Your task to perform on an android device: Show me popular games on the Play Store Image 0: 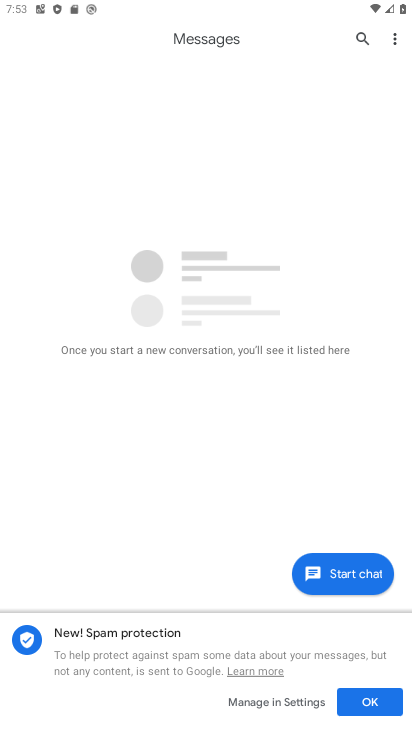
Step 0: press home button
Your task to perform on an android device: Show me popular games on the Play Store Image 1: 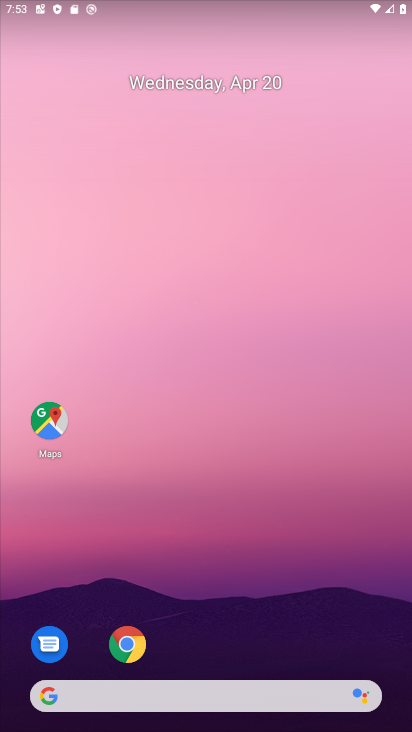
Step 1: drag from (317, 618) to (229, 78)
Your task to perform on an android device: Show me popular games on the Play Store Image 2: 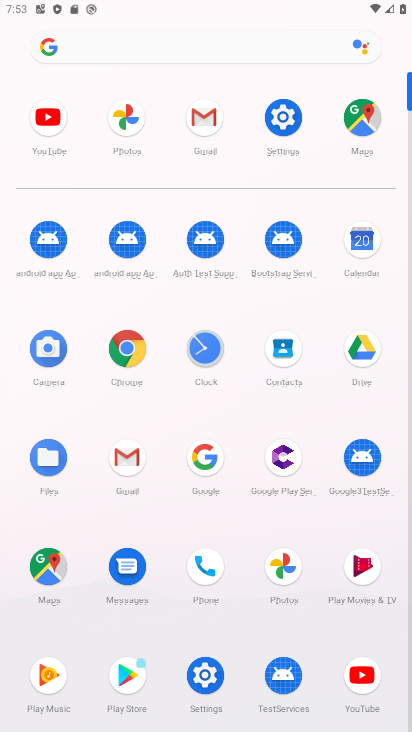
Step 2: click (125, 666)
Your task to perform on an android device: Show me popular games on the Play Store Image 3: 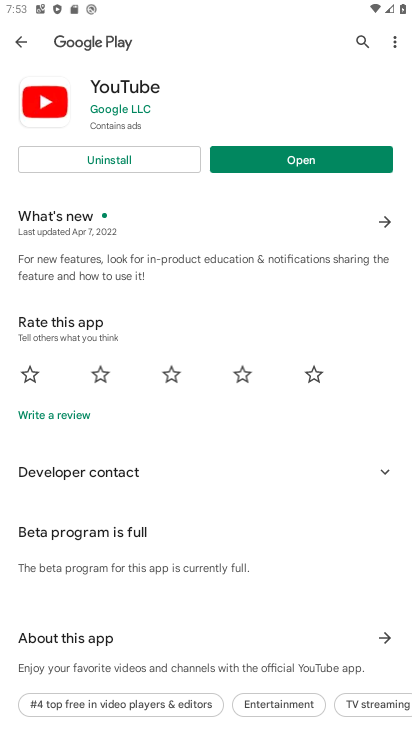
Step 3: press back button
Your task to perform on an android device: Show me popular games on the Play Store Image 4: 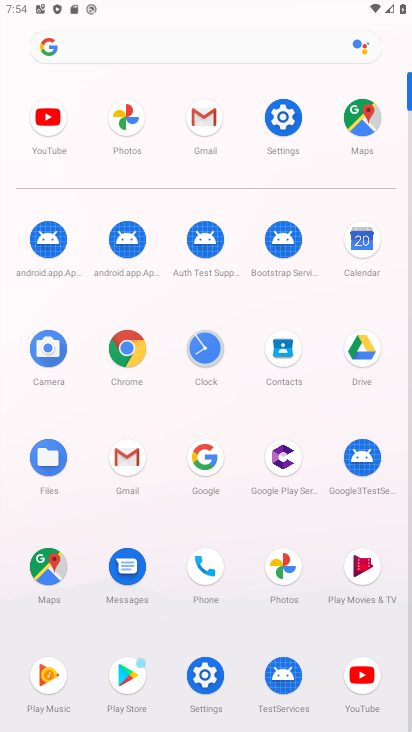
Step 4: click (147, 675)
Your task to perform on an android device: Show me popular games on the Play Store Image 5: 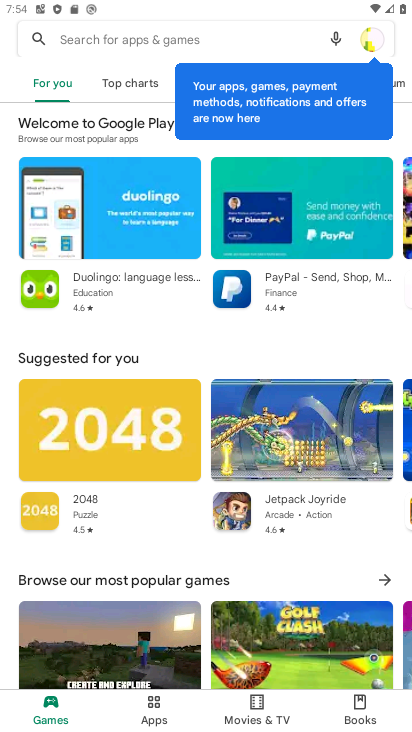
Step 5: click (141, 86)
Your task to perform on an android device: Show me popular games on the Play Store Image 6: 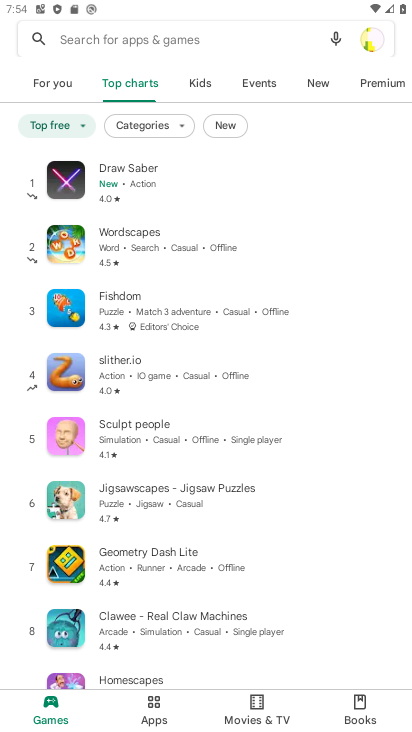
Step 6: click (177, 123)
Your task to perform on an android device: Show me popular games on the Play Store Image 7: 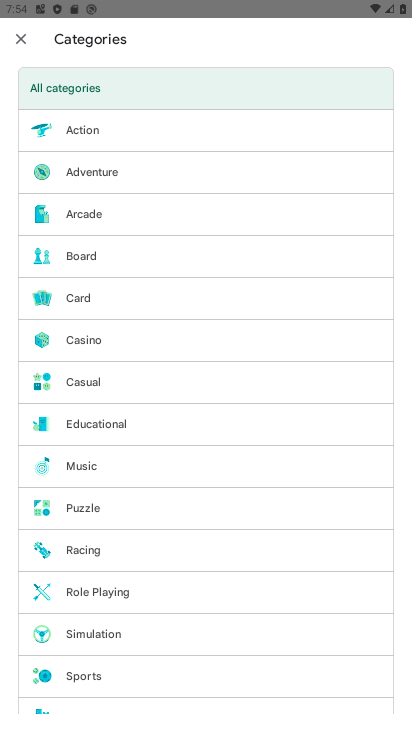
Step 7: click (221, 83)
Your task to perform on an android device: Show me popular games on the Play Store Image 8: 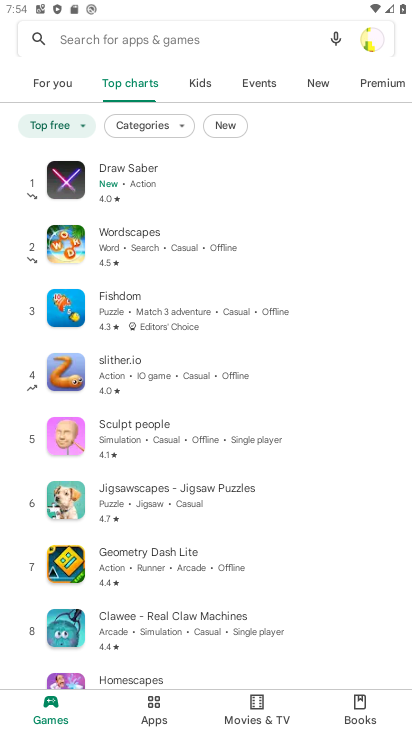
Step 8: click (80, 131)
Your task to perform on an android device: Show me popular games on the Play Store Image 9: 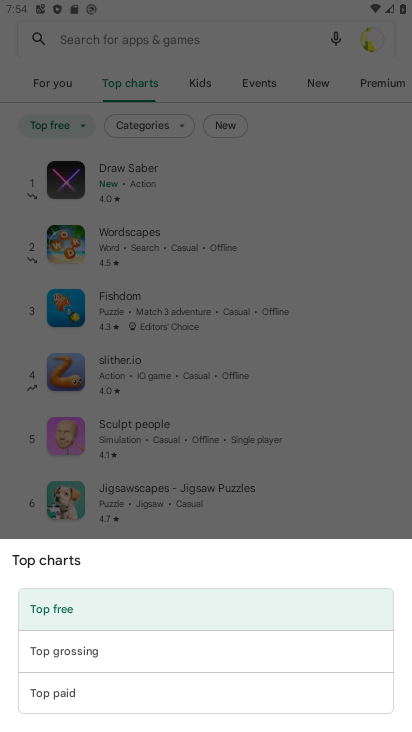
Step 9: click (79, 131)
Your task to perform on an android device: Show me popular games on the Play Store Image 10: 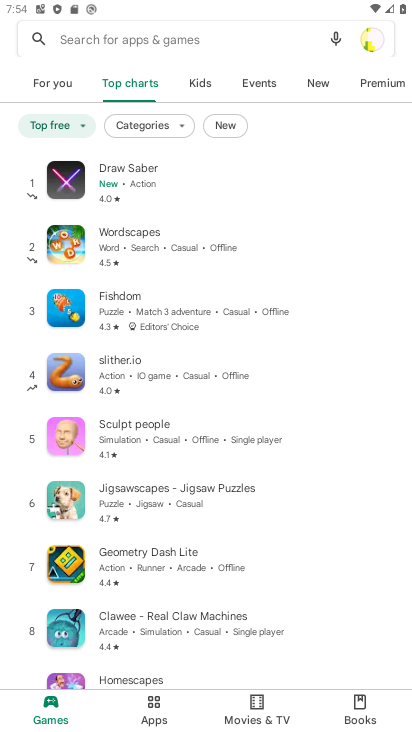
Step 10: task complete